Your task to perform on an android device: set the timer Image 0: 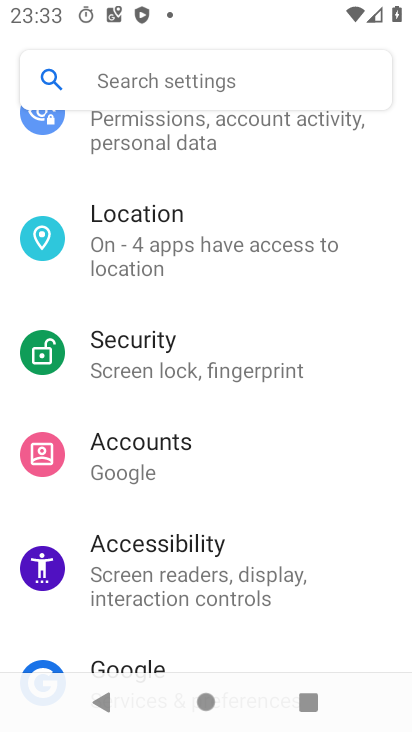
Step 0: drag from (181, 614) to (231, 252)
Your task to perform on an android device: set the timer Image 1: 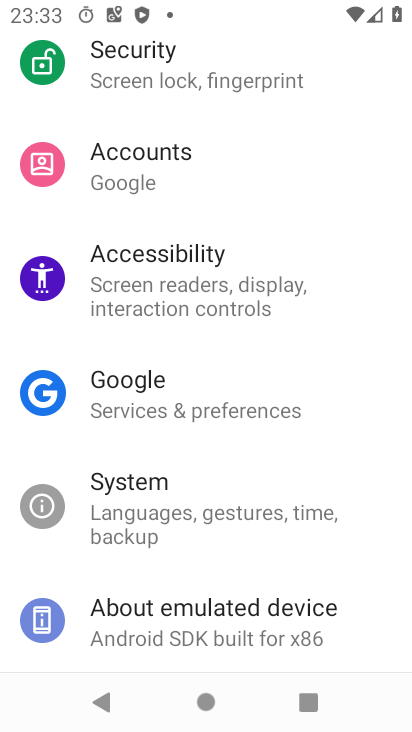
Step 1: drag from (214, 533) to (343, 202)
Your task to perform on an android device: set the timer Image 2: 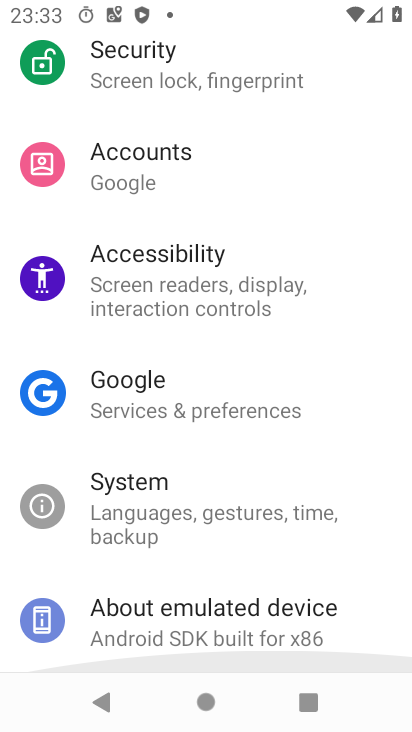
Step 2: drag from (340, 180) to (232, 713)
Your task to perform on an android device: set the timer Image 3: 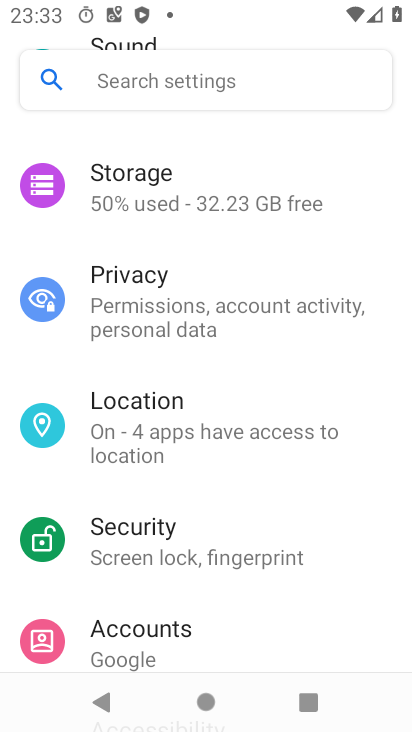
Step 3: drag from (277, 221) to (226, 723)
Your task to perform on an android device: set the timer Image 4: 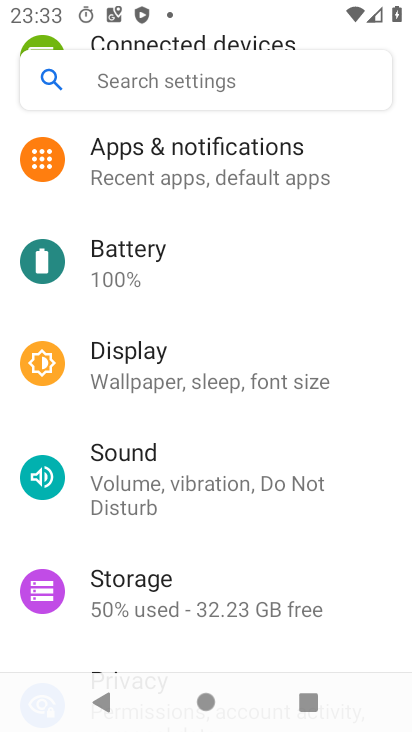
Step 4: drag from (235, 306) to (257, 726)
Your task to perform on an android device: set the timer Image 5: 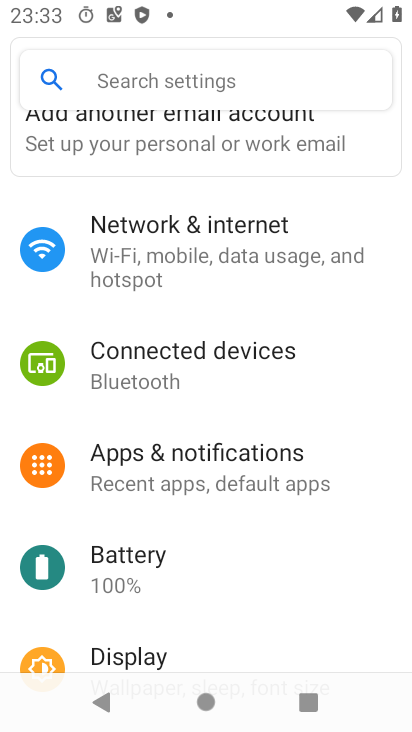
Step 5: drag from (291, 246) to (234, 708)
Your task to perform on an android device: set the timer Image 6: 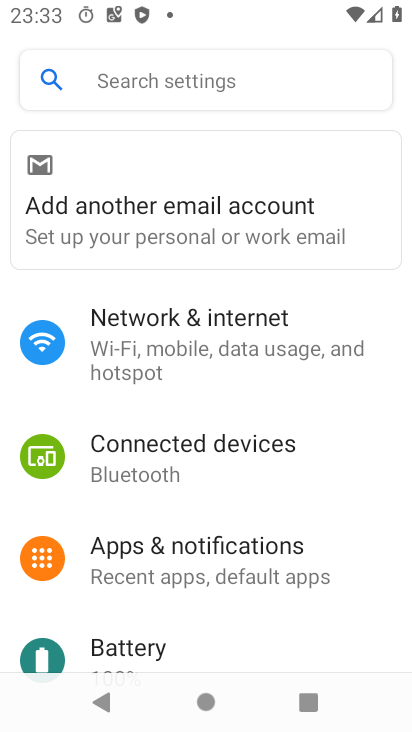
Step 6: press home button
Your task to perform on an android device: set the timer Image 7: 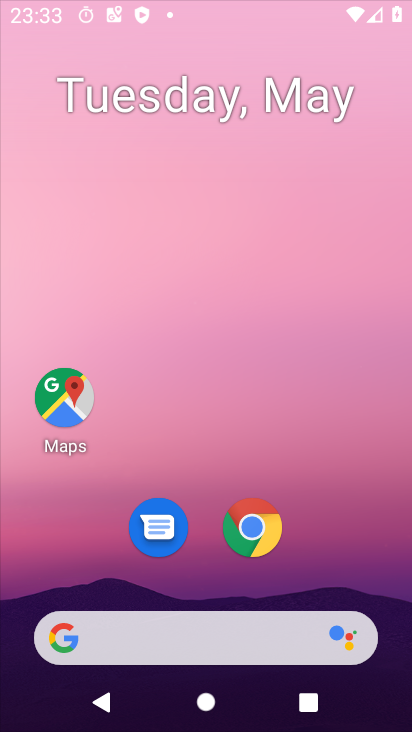
Step 7: drag from (334, 297) to (379, 86)
Your task to perform on an android device: set the timer Image 8: 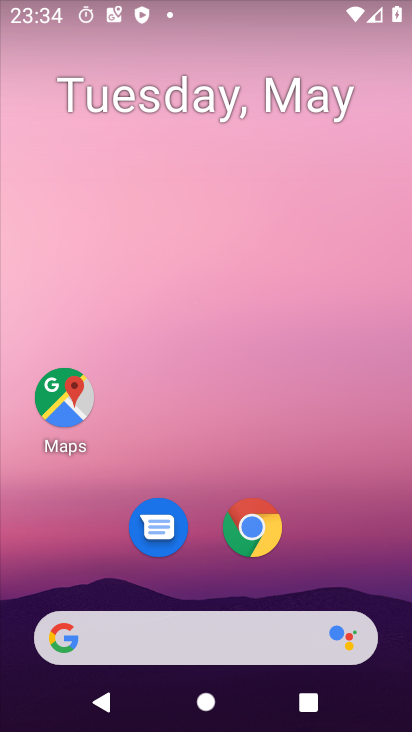
Step 8: drag from (231, 605) to (257, 54)
Your task to perform on an android device: set the timer Image 9: 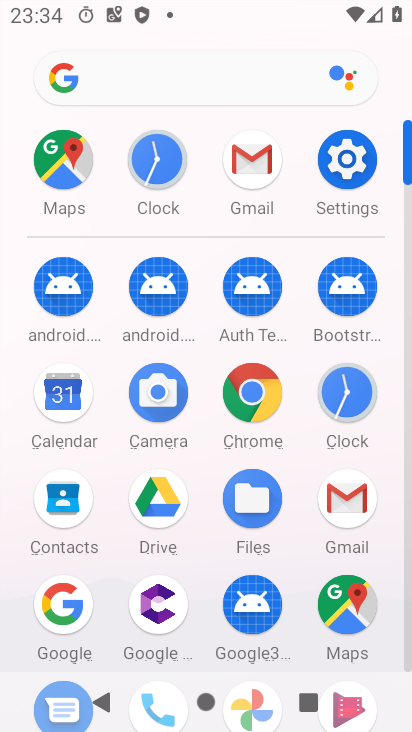
Step 9: click (329, 379)
Your task to perform on an android device: set the timer Image 10: 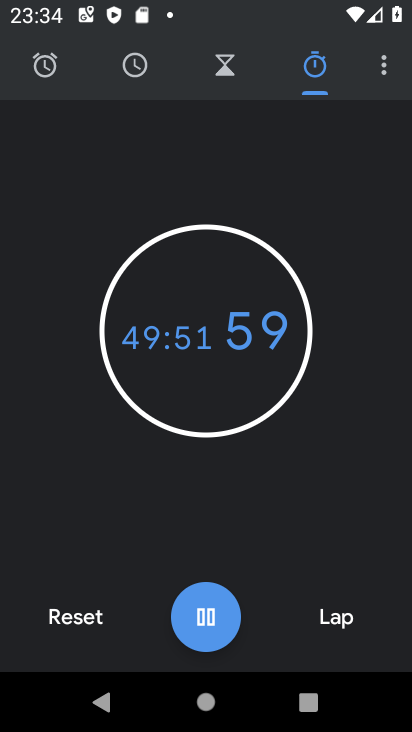
Step 10: click (377, 69)
Your task to perform on an android device: set the timer Image 11: 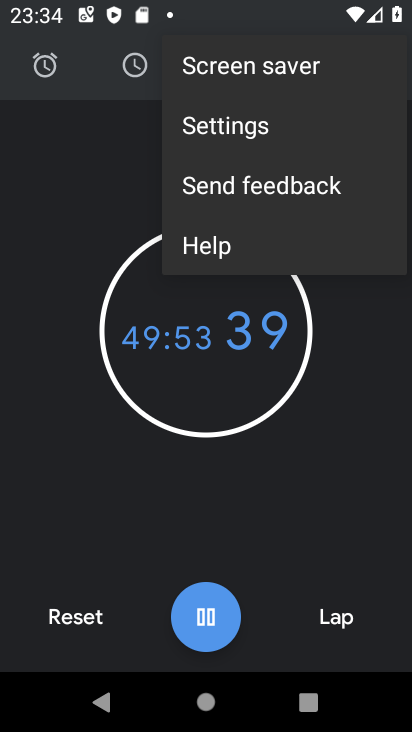
Step 11: click (217, 121)
Your task to perform on an android device: set the timer Image 12: 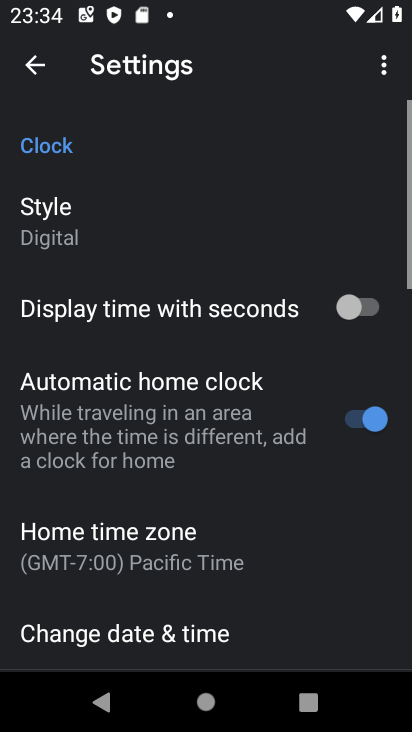
Step 12: drag from (226, 526) to (307, 90)
Your task to perform on an android device: set the timer Image 13: 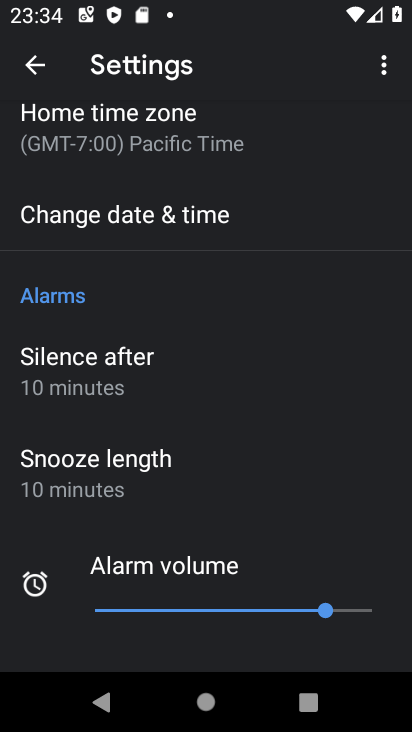
Step 13: drag from (186, 485) to (265, 157)
Your task to perform on an android device: set the timer Image 14: 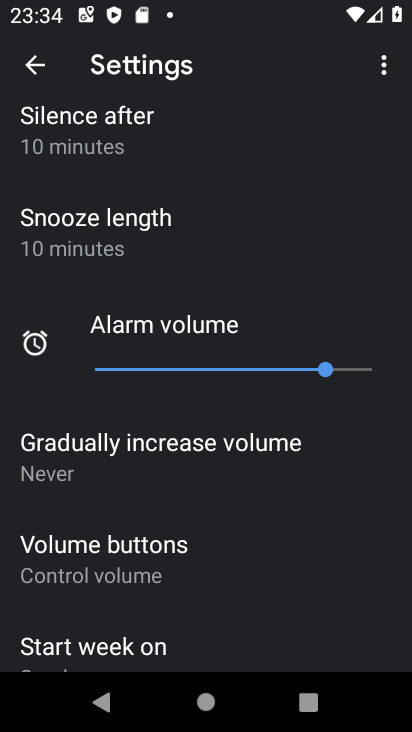
Step 14: drag from (263, 548) to (351, 96)
Your task to perform on an android device: set the timer Image 15: 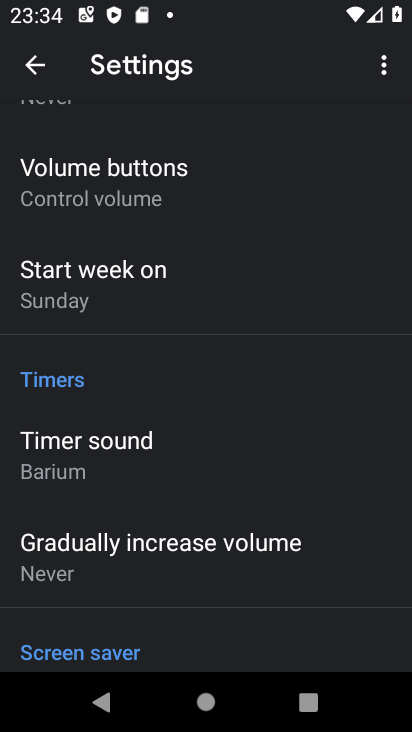
Step 15: click (167, 462)
Your task to perform on an android device: set the timer Image 16: 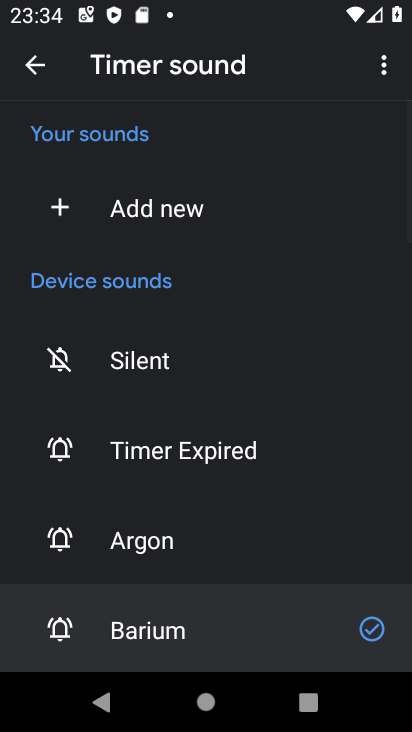
Step 16: click (14, 60)
Your task to perform on an android device: set the timer Image 17: 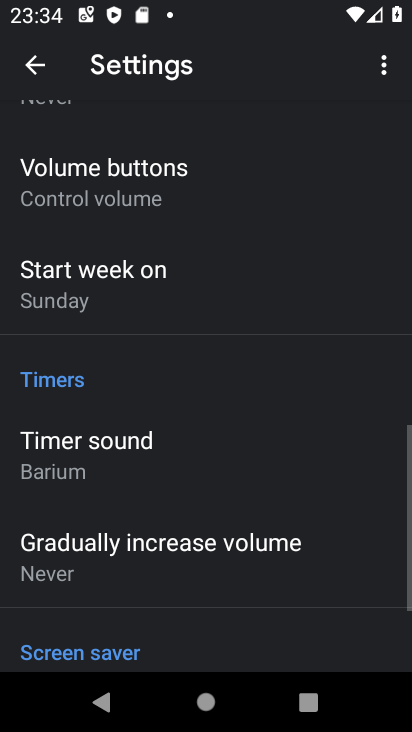
Step 17: click (31, 68)
Your task to perform on an android device: set the timer Image 18: 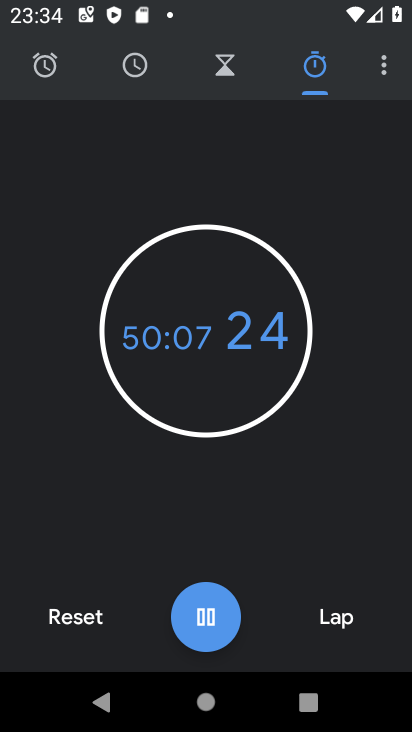
Step 18: click (214, 72)
Your task to perform on an android device: set the timer Image 19: 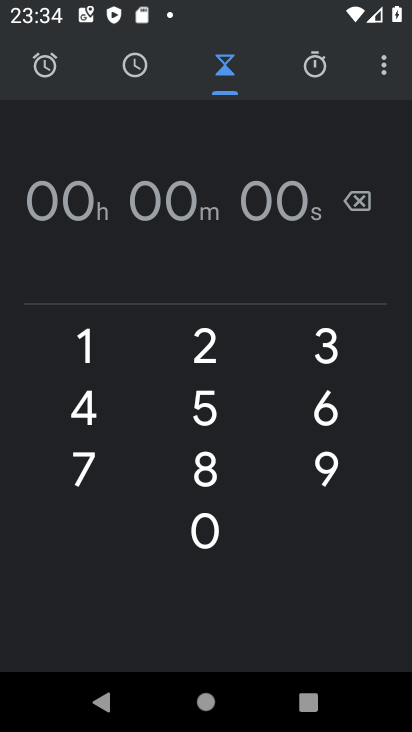
Step 19: click (185, 423)
Your task to perform on an android device: set the timer Image 20: 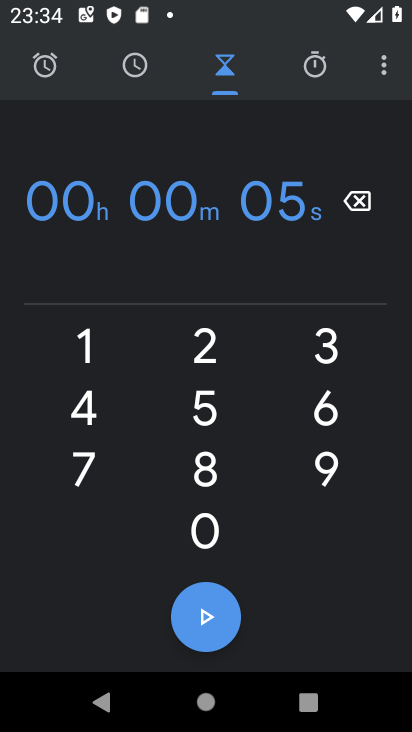
Step 20: click (342, 396)
Your task to perform on an android device: set the timer Image 21: 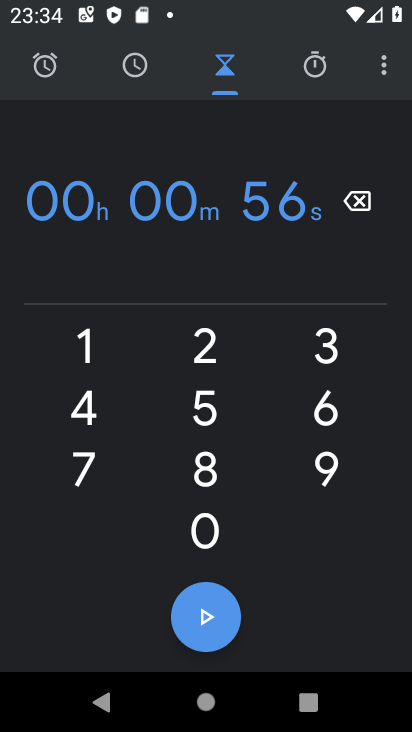
Step 21: click (203, 610)
Your task to perform on an android device: set the timer Image 22: 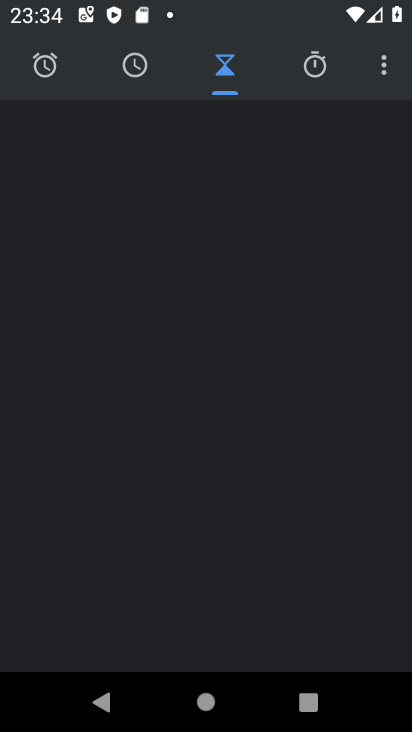
Step 22: task complete